Your task to perform on an android device: find photos in the google photos app Image 0: 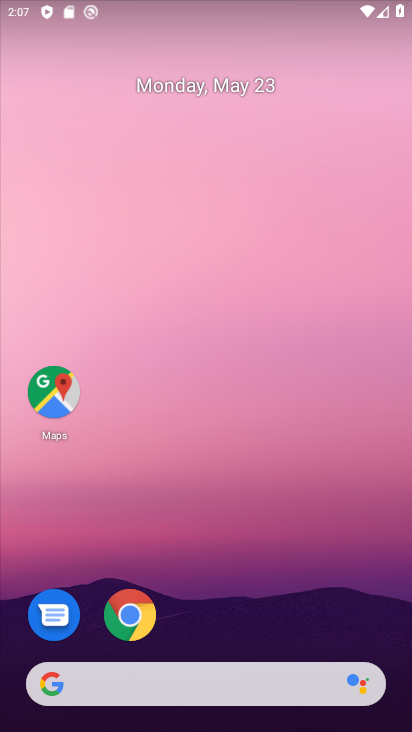
Step 0: drag from (252, 622) to (240, 2)
Your task to perform on an android device: find photos in the google photos app Image 1: 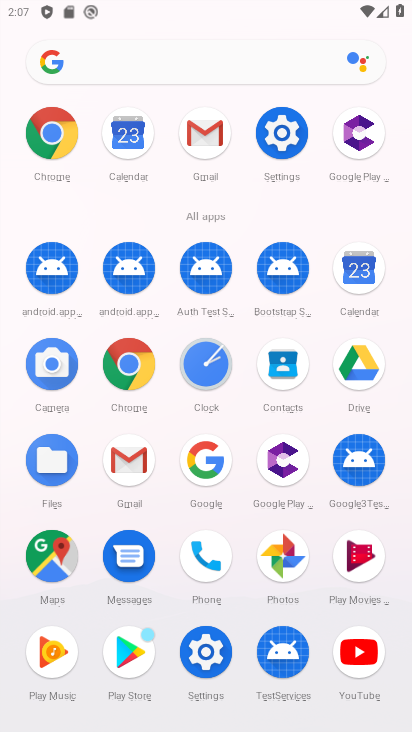
Step 1: click (276, 558)
Your task to perform on an android device: find photos in the google photos app Image 2: 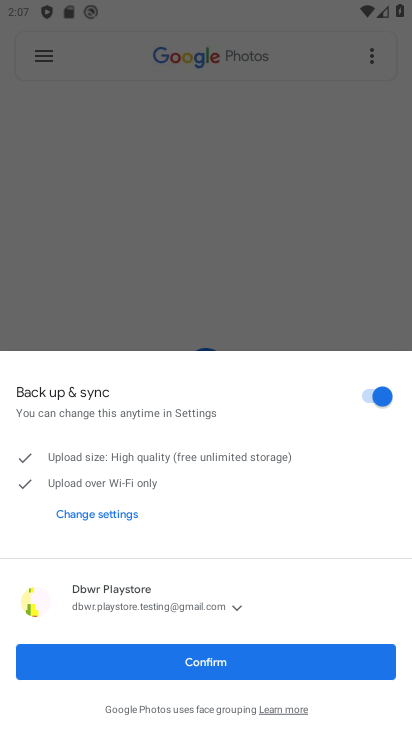
Step 2: click (225, 660)
Your task to perform on an android device: find photos in the google photos app Image 3: 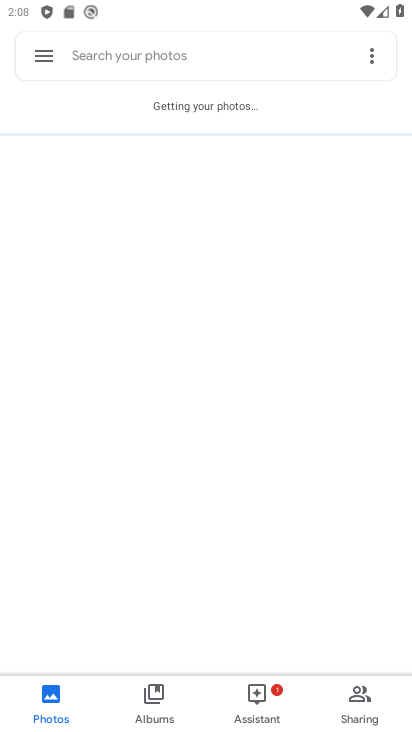
Step 3: click (51, 698)
Your task to perform on an android device: find photos in the google photos app Image 4: 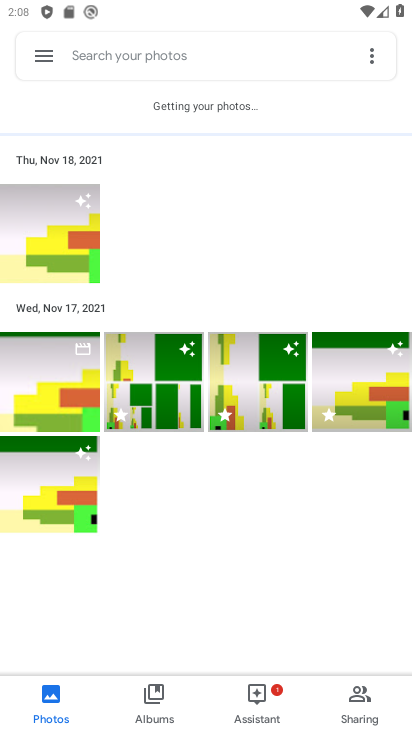
Step 4: task complete